Your task to perform on an android device: Find coffee shops on Maps Image 0: 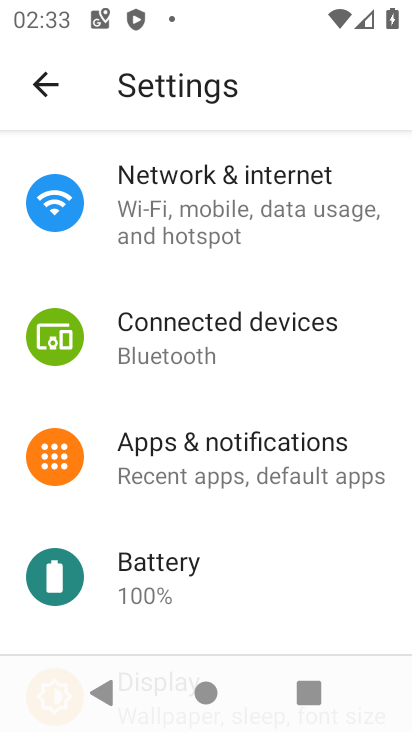
Step 0: press home button
Your task to perform on an android device: Find coffee shops on Maps Image 1: 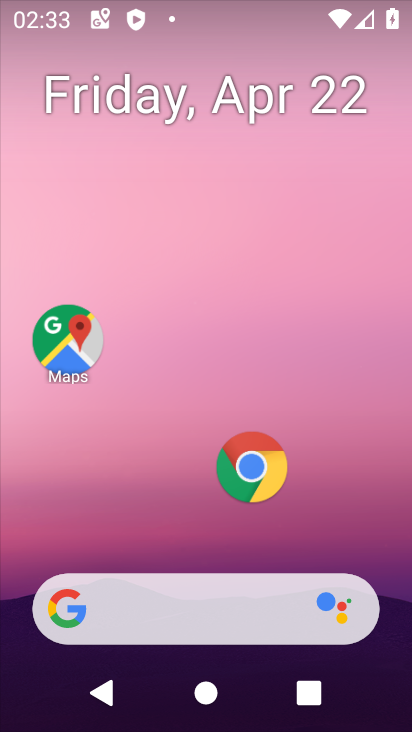
Step 1: click (68, 342)
Your task to perform on an android device: Find coffee shops on Maps Image 2: 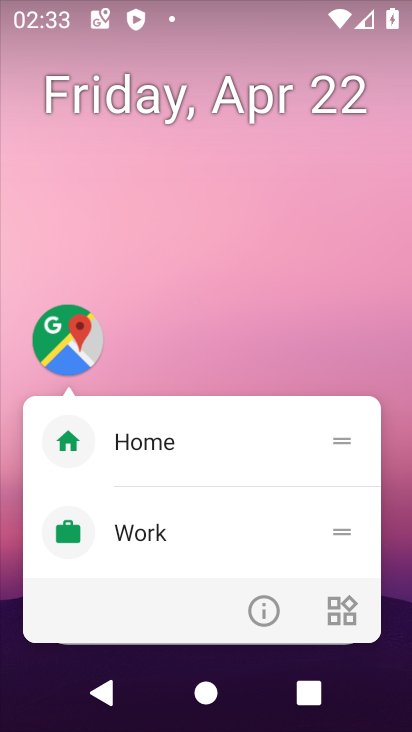
Step 2: click (253, 614)
Your task to perform on an android device: Find coffee shops on Maps Image 3: 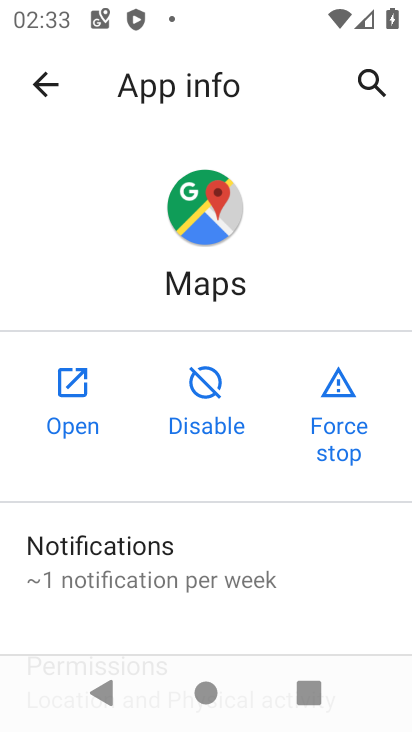
Step 3: click (74, 391)
Your task to perform on an android device: Find coffee shops on Maps Image 4: 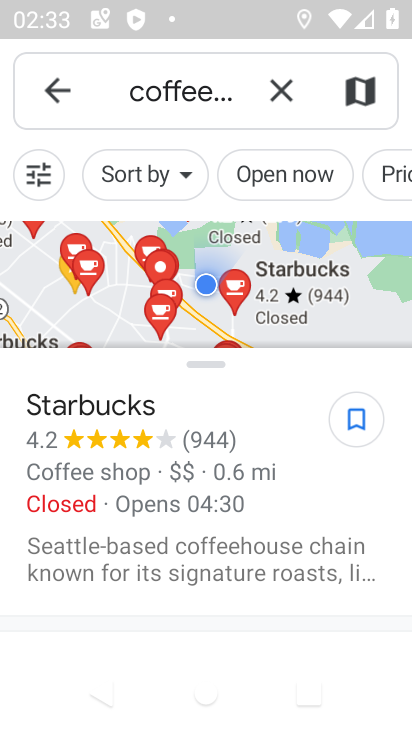
Step 4: click (229, 92)
Your task to perform on an android device: Find coffee shops on Maps Image 5: 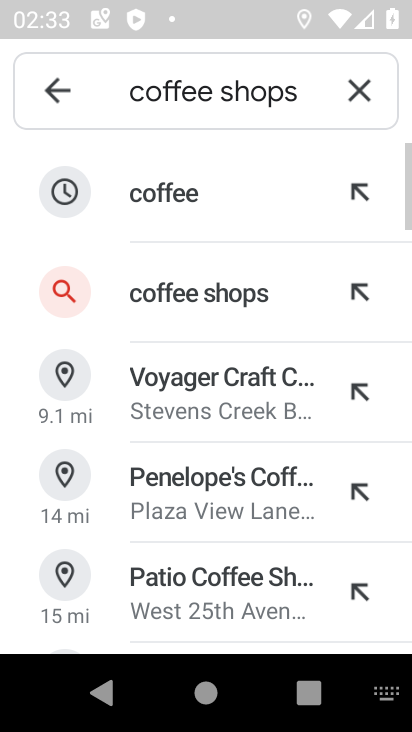
Step 5: click (219, 304)
Your task to perform on an android device: Find coffee shops on Maps Image 6: 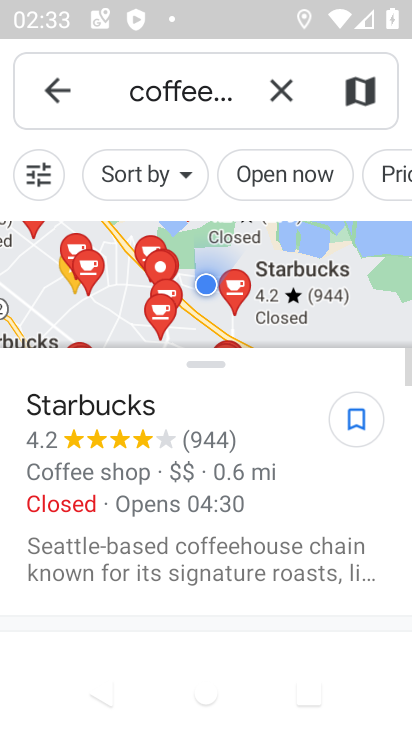
Step 6: task complete